Your task to perform on an android device: check google app version Image 0: 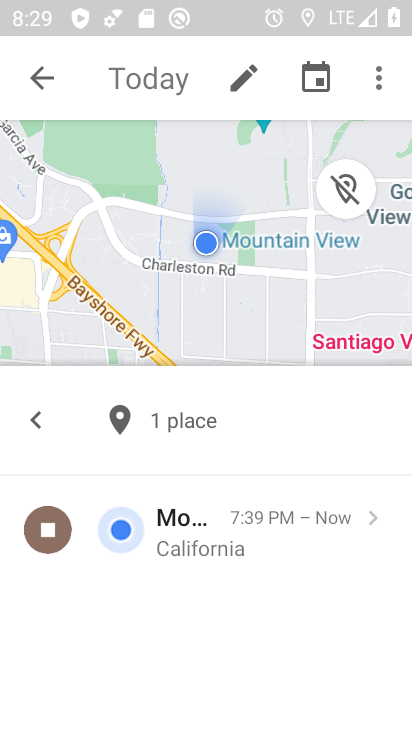
Step 0: press home button
Your task to perform on an android device: check google app version Image 1: 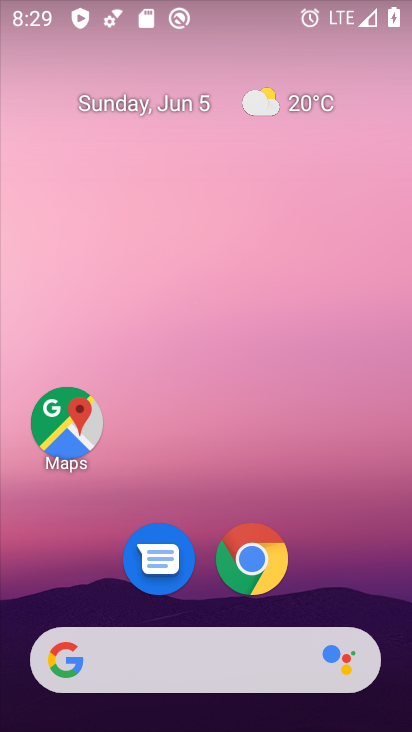
Step 1: drag from (316, 514) to (214, 24)
Your task to perform on an android device: check google app version Image 2: 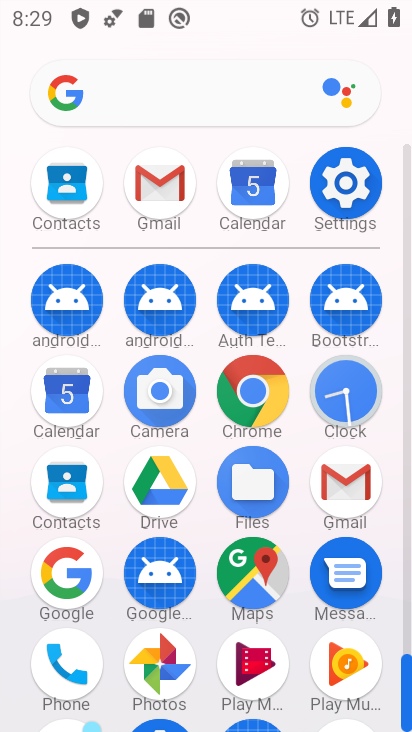
Step 2: click (67, 564)
Your task to perform on an android device: check google app version Image 3: 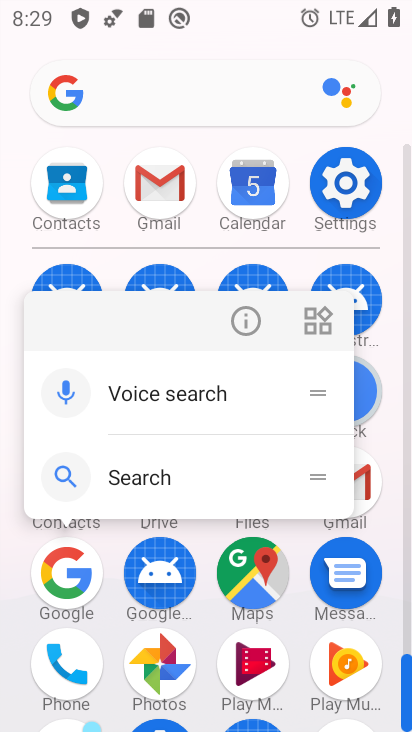
Step 3: click (244, 320)
Your task to perform on an android device: check google app version Image 4: 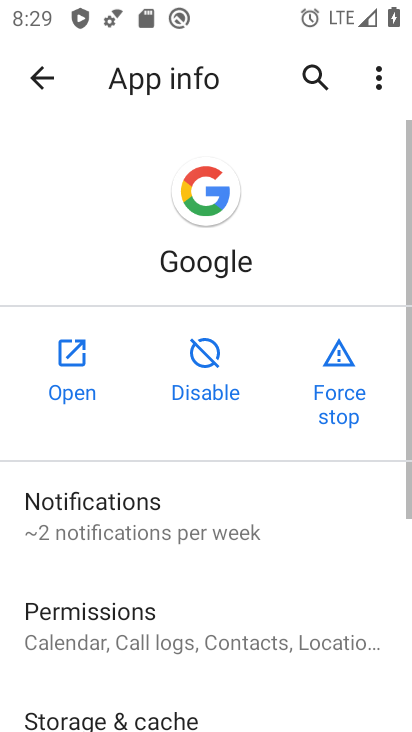
Step 4: drag from (229, 652) to (260, 142)
Your task to perform on an android device: check google app version Image 5: 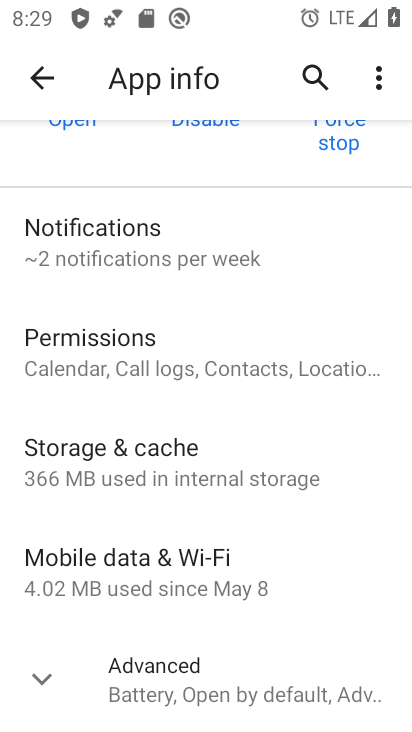
Step 5: click (191, 674)
Your task to perform on an android device: check google app version Image 6: 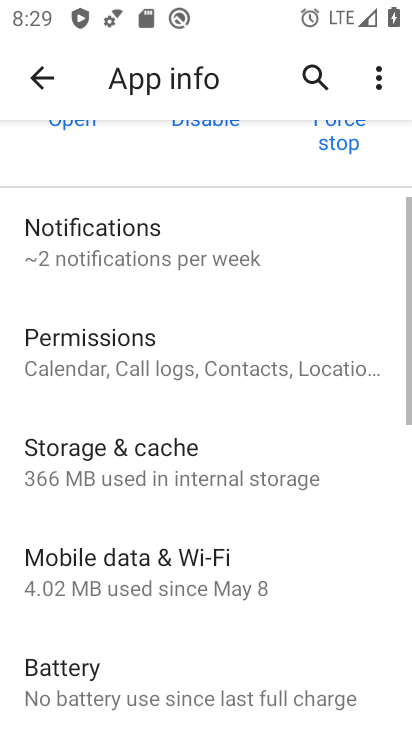
Step 6: task complete